Your task to perform on an android device: turn off sleep mode Image 0: 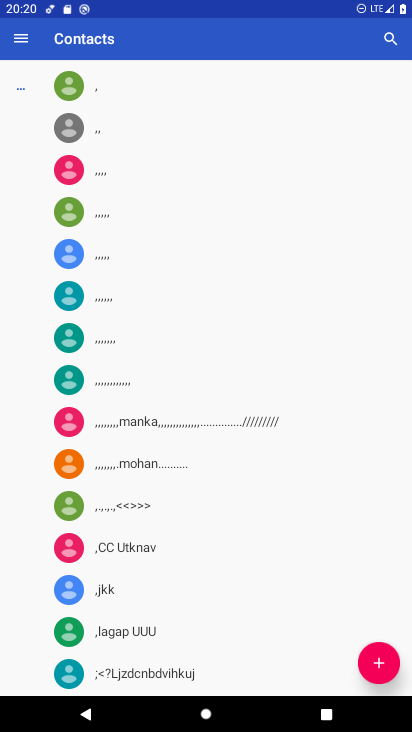
Step 0: press home button
Your task to perform on an android device: turn off sleep mode Image 1: 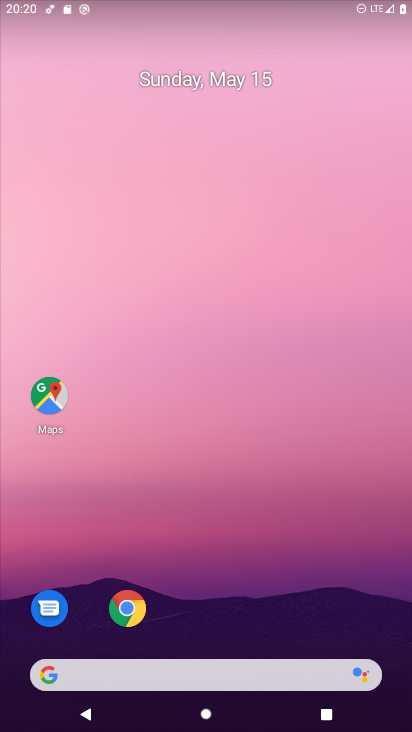
Step 1: drag from (226, 620) to (176, 90)
Your task to perform on an android device: turn off sleep mode Image 2: 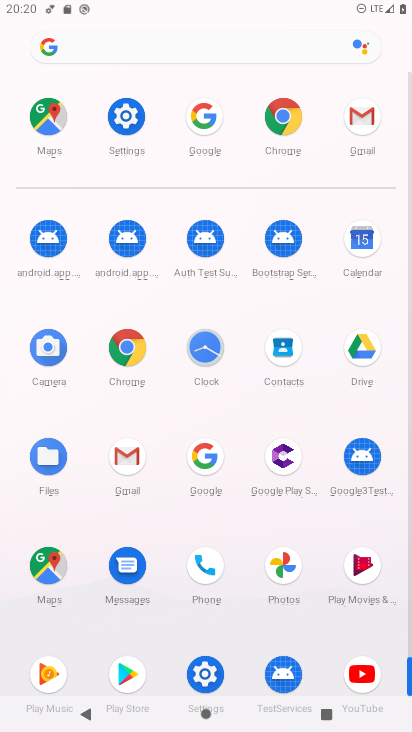
Step 2: click (204, 667)
Your task to perform on an android device: turn off sleep mode Image 3: 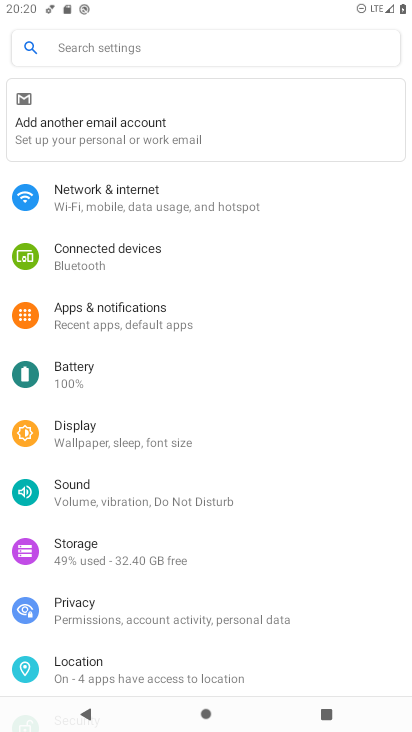
Step 3: click (136, 429)
Your task to perform on an android device: turn off sleep mode Image 4: 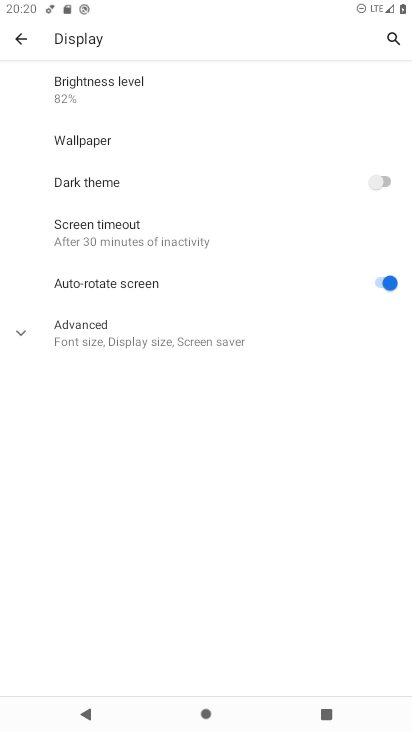
Step 4: click (134, 228)
Your task to perform on an android device: turn off sleep mode Image 5: 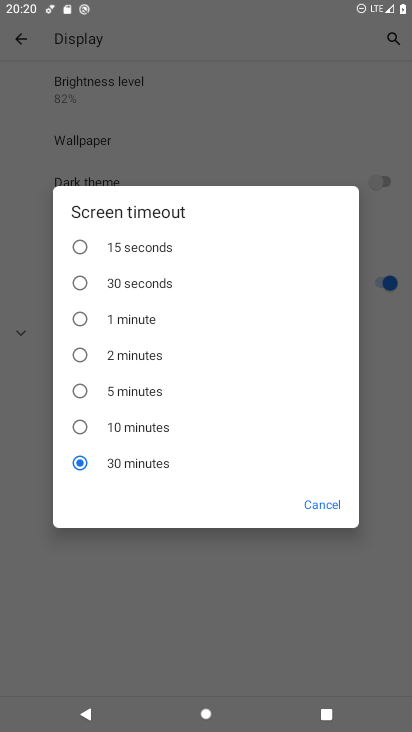
Step 5: task complete